Your task to perform on an android device: toggle notifications settings in the gmail app Image 0: 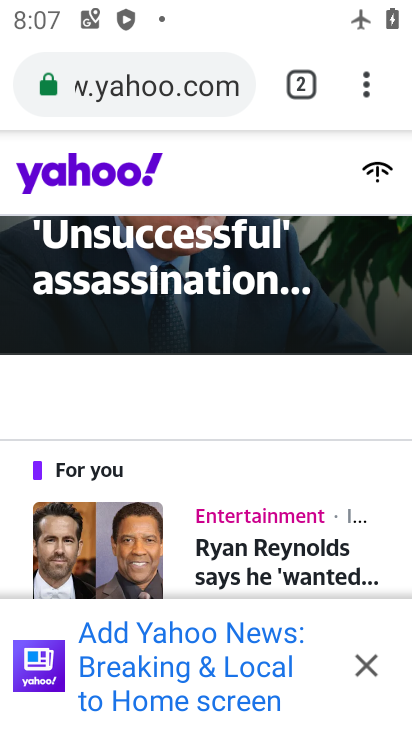
Step 0: press home button
Your task to perform on an android device: toggle notifications settings in the gmail app Image 1: 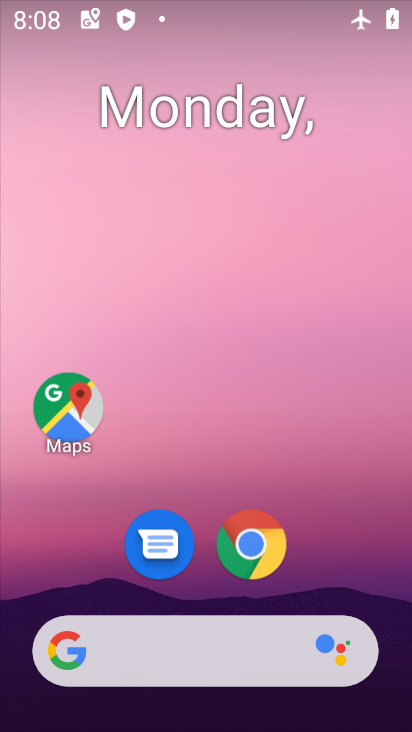
Step 1: drag from (344, 536) to (112, 59)
Your task to perform on an android device: toggle notifications settings in the gmail app Image 2: 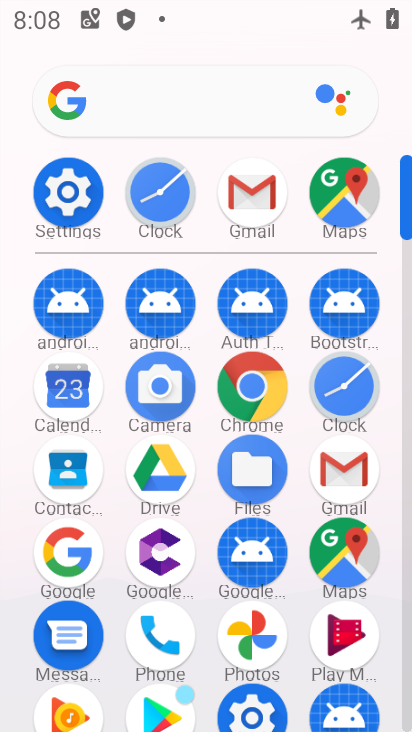
Step 2: click (266, 204)
Your task to perform on an android device: toggle notifications settings in the gmail app Image 3: 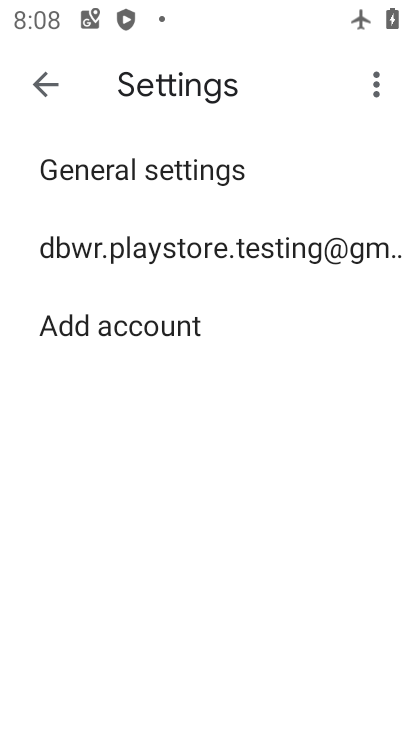
Step 3: click (145, 167)
Your task to perform on an android device: toggle notifications settings in the gmail app Image 4: 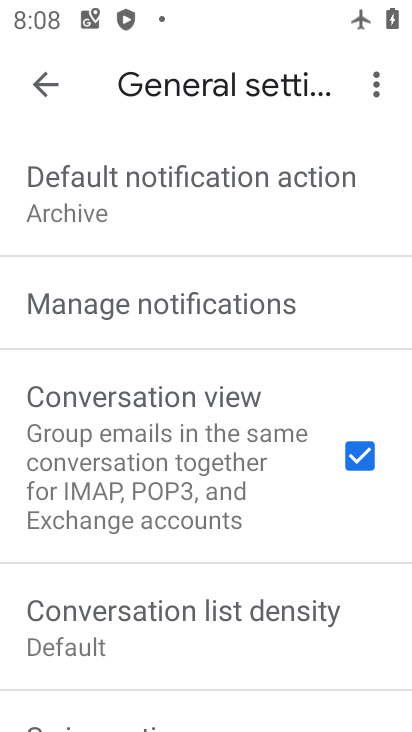
Step 4: click (135, 310)
Your task to perform on an android device: toggle notifications settings in the gmail app Image 5: 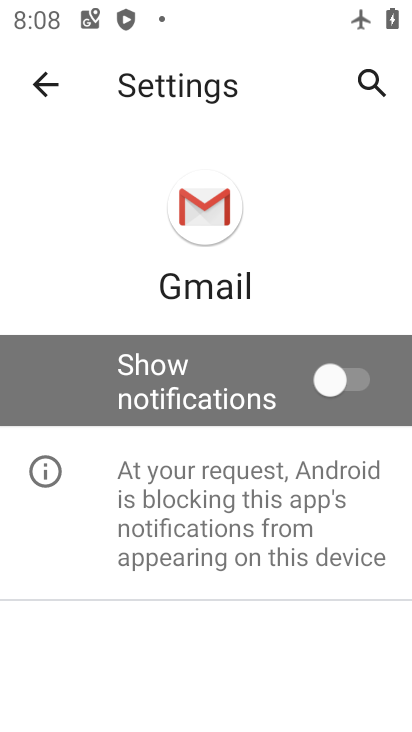
Step 5: click (329, 373)
Your task to perform on an android device: toggle notifications settings in the gmail app Image 6: 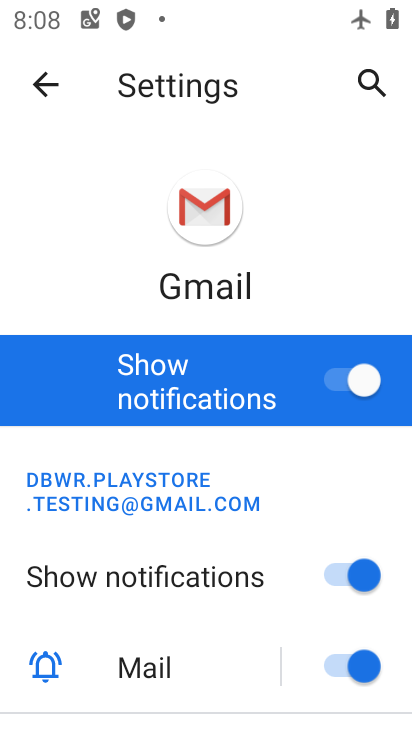
Step 6: task complete